Your task to perform on an android device: turn off sleep mode Image 0: 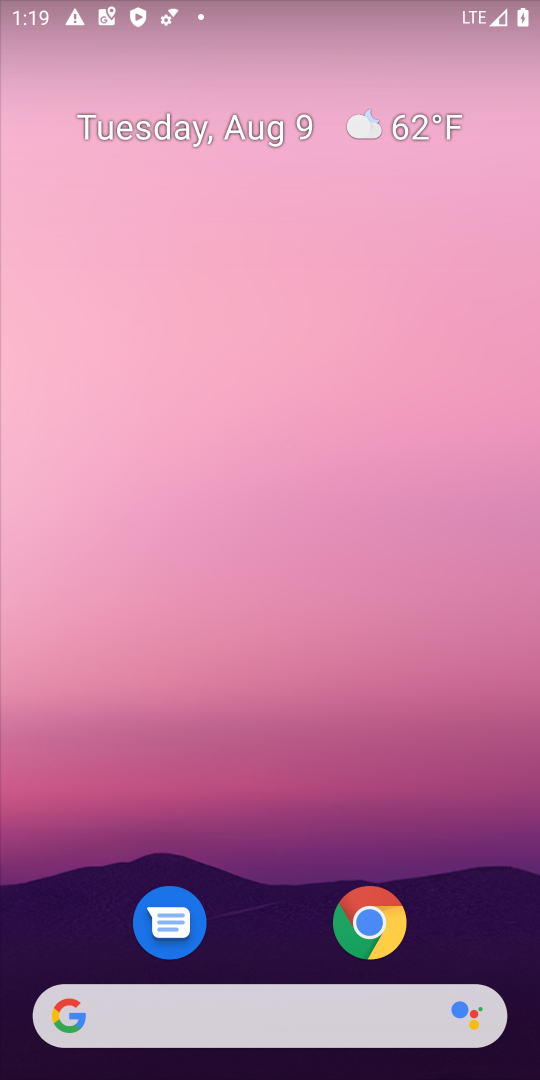
Step 0: drag from (309, 953) to (294, 350)
Your task to perform on an android device: turn off sleep mode Image 1: 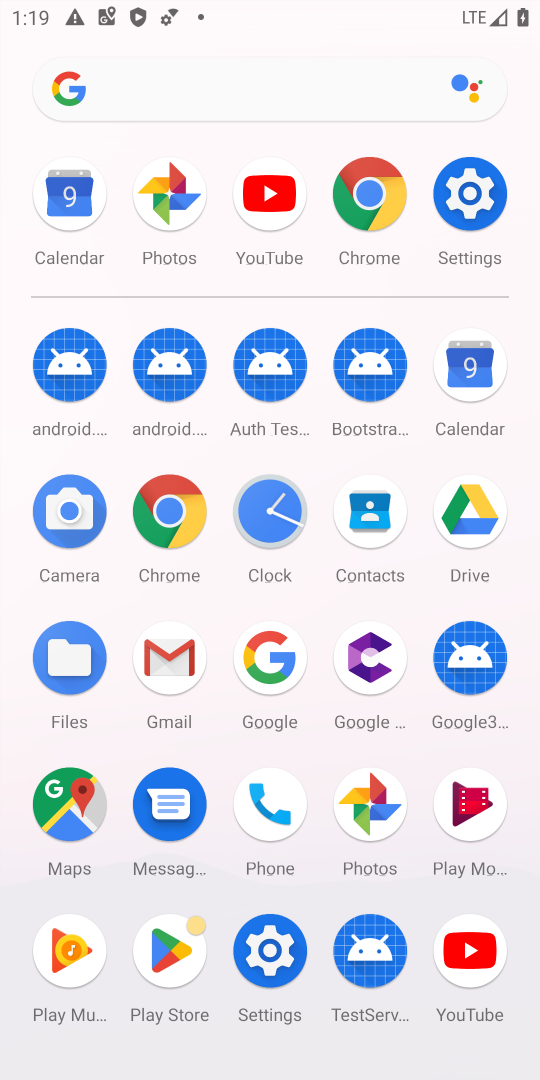
Step 1: click (464, 194)
Your task to perform on an android device: turn off sleep mode Image 2: 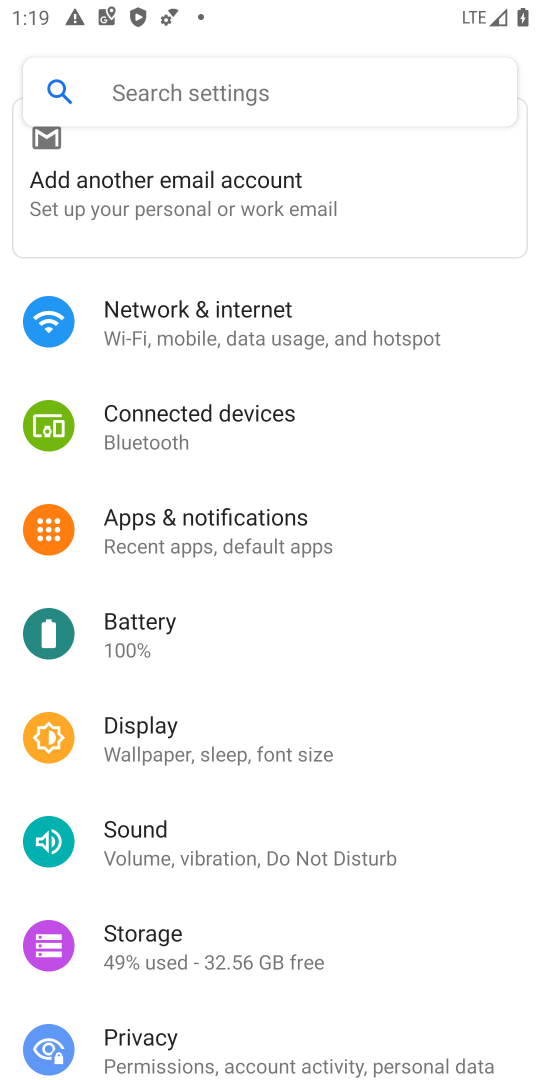
Step 2: click (141, 710)
Your task to perform on an android device: turn off sleep mode Image 3: 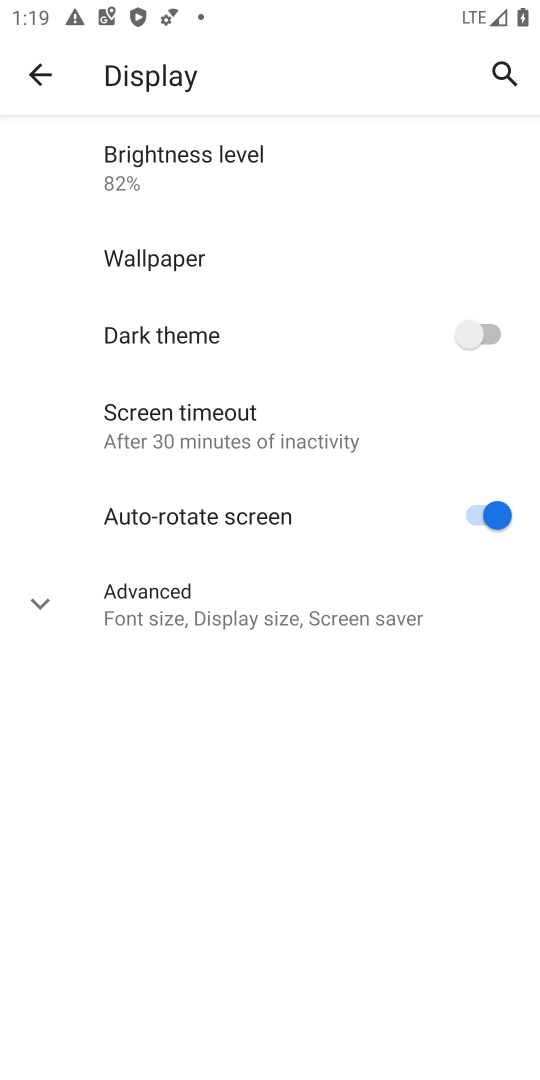
Step 3: click (221, 600)
Your task to perform on an android device: turn off sleep mode Image 4: 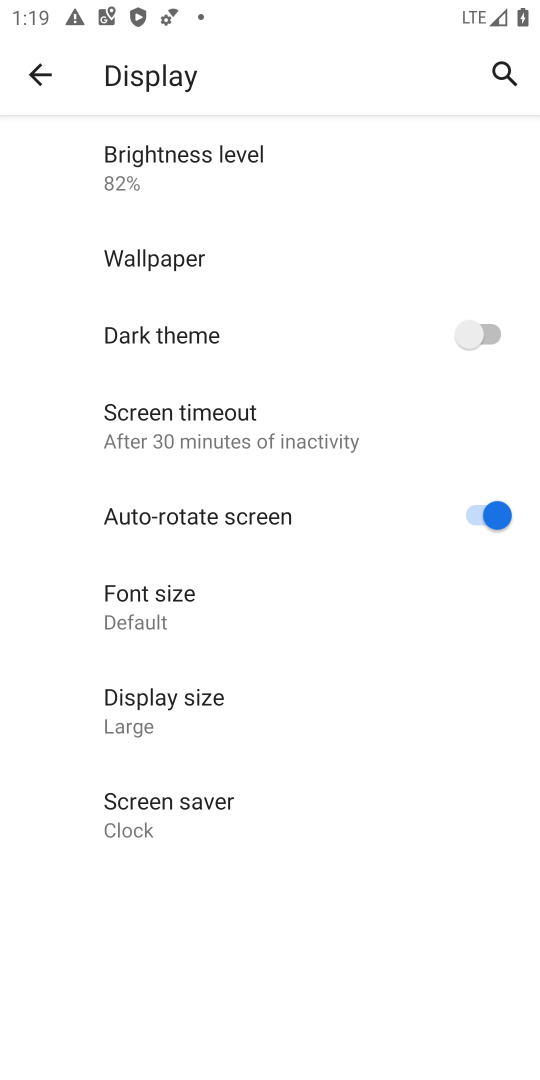
Step 4: task complete